Your task to perform on an android device: change the upload size in google photos Image 0: 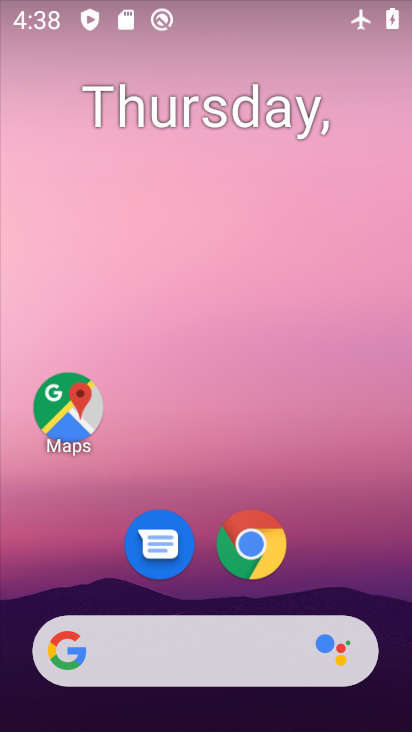
Step 0: drag from (323, 541) to (333, 134)
Your task to perform on an android device: change the upload size in google photos Image 1: 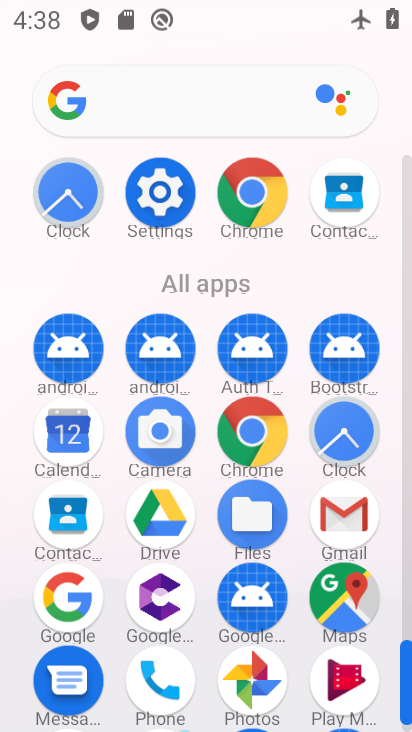
Step 1: click (255, 687)
Your task to perform on an android device: change the upload size in google photos Image 2: 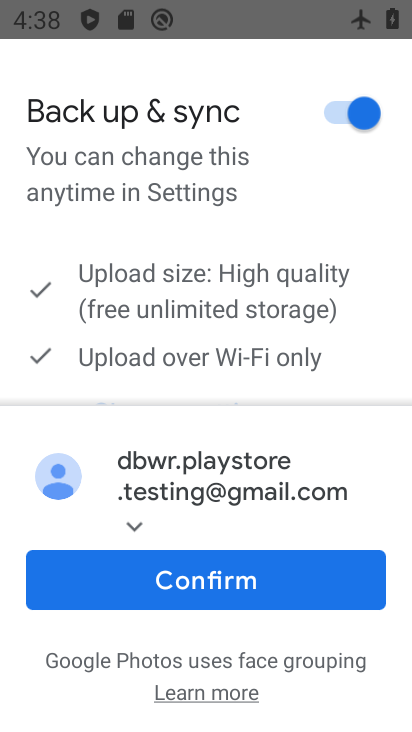
Step 2: click (208, 577)
Your task to perform on an android device: change the upload size in google photos Image 3: 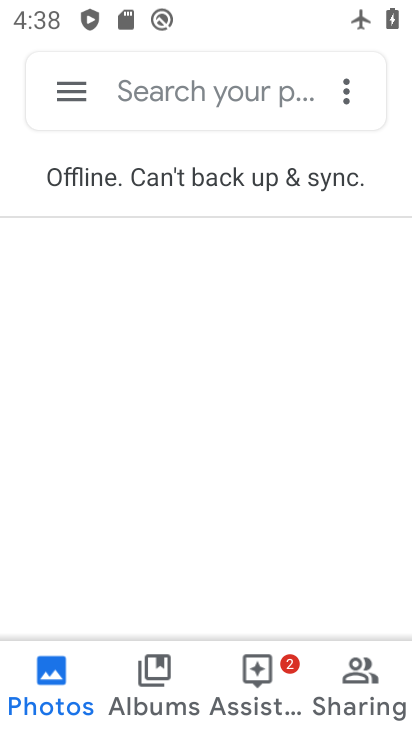
Step 3: click (86, 82)
Your task to perform on an android device: change the upload size in google photos Image 4: 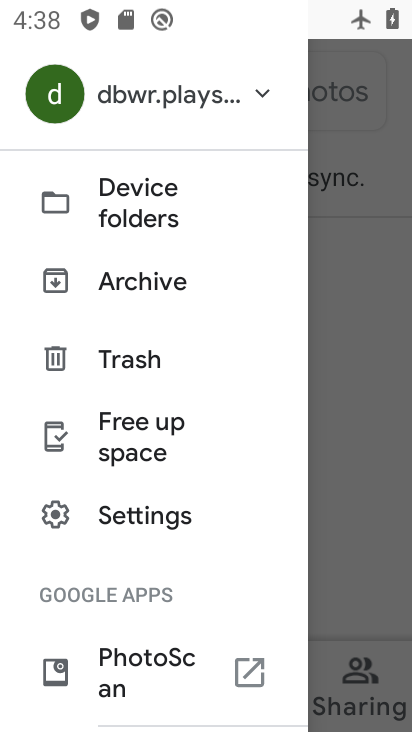
Step 4: drag from (144, 537) to (188, 251)
Your task to perform on an android device: change the upload size in google photos Image 5: 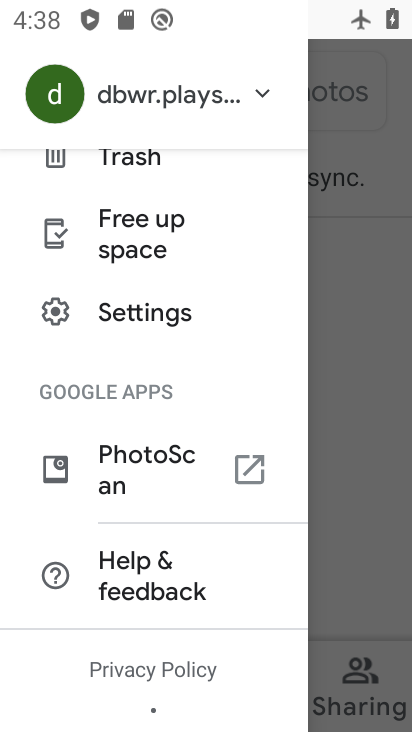
Step 5: drag from (127, 513) to (225, 216)
Your task to perform on an android device: change the upload size in google photos Image 6: 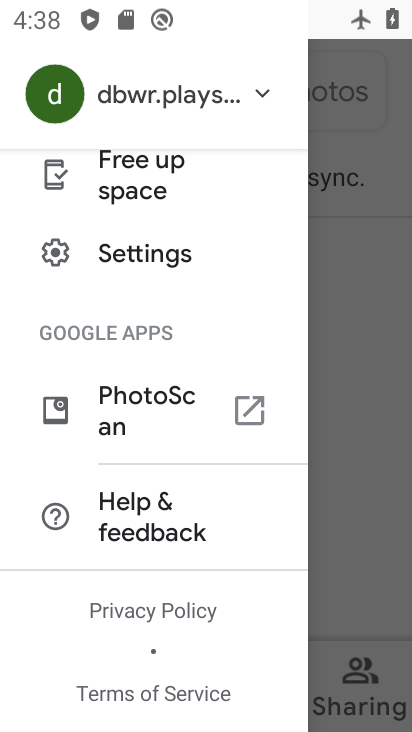
Step 6: drag from (136, 288) to (126, 491)
Your task to perform on an android device: change the upload size in google photos Image 7: 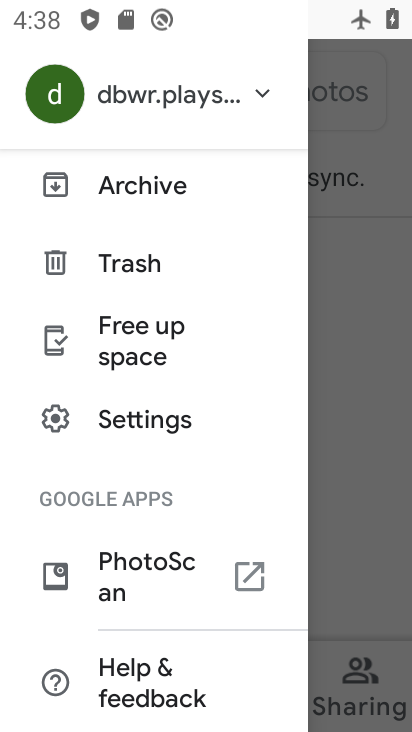
Step 7: click (141, 419)
Your task to perform on an android device: change the upload size in google photos Image 8: 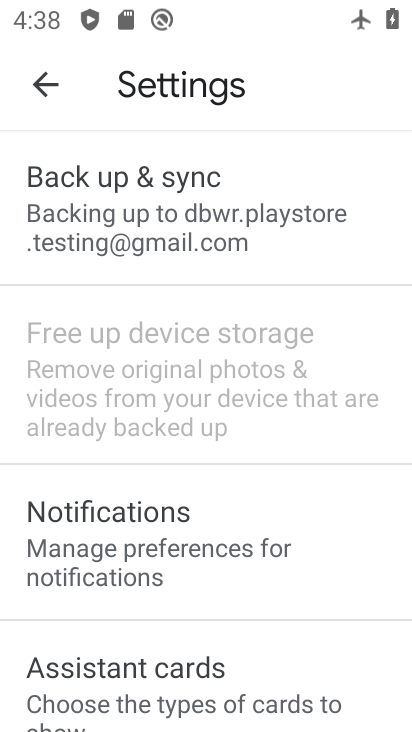
Step 8: click (180, 210)
Your task to perform on an android device: change the upload size in google photos Image 9: 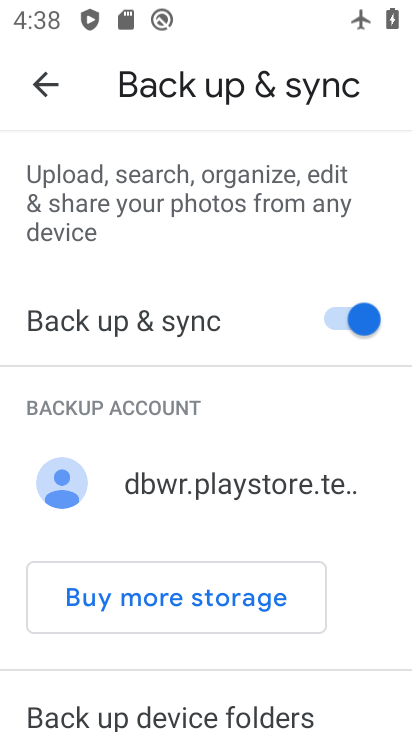
Step 9: drag from (267, 517) to (281, 274)
Your task to perform on an android device: change the upload size in google photos Image 10: 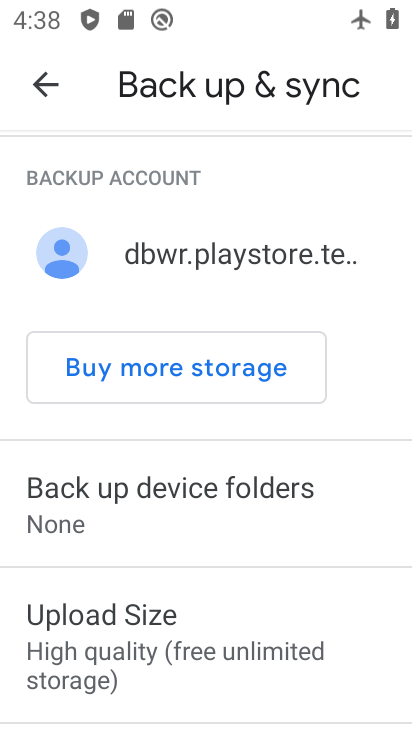
Step 10: click (200, 637)
Your task to perform on an android device: change the upload size in google photos Image 11: 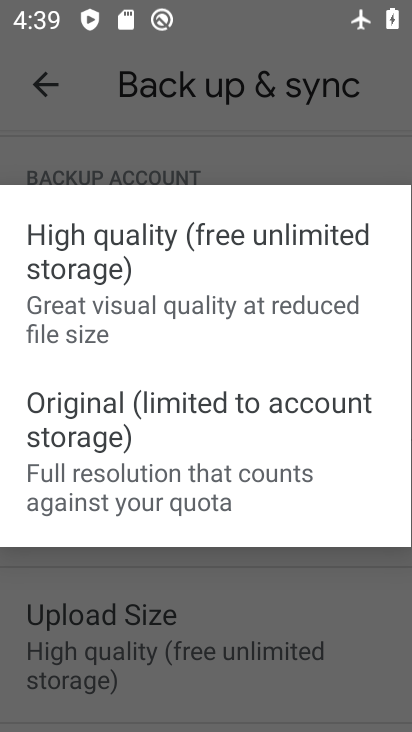
Step 11: click (251, 443)
Your task to perform on an android device: change the upload size in google photos Image 12: 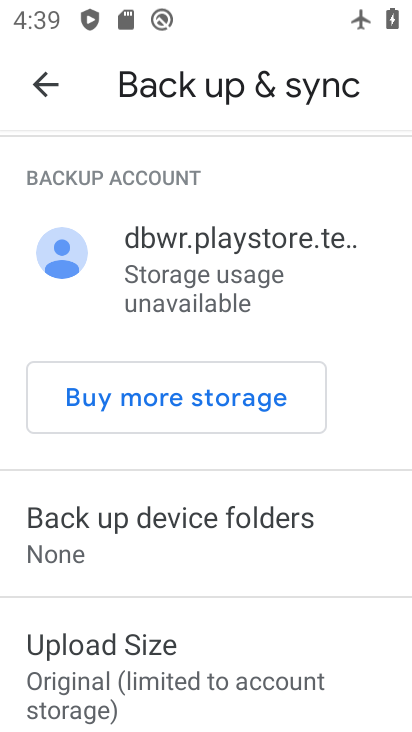
Step 12: task complete